Your task to perform on an android device: Open Maps and search for coffee Image 0: 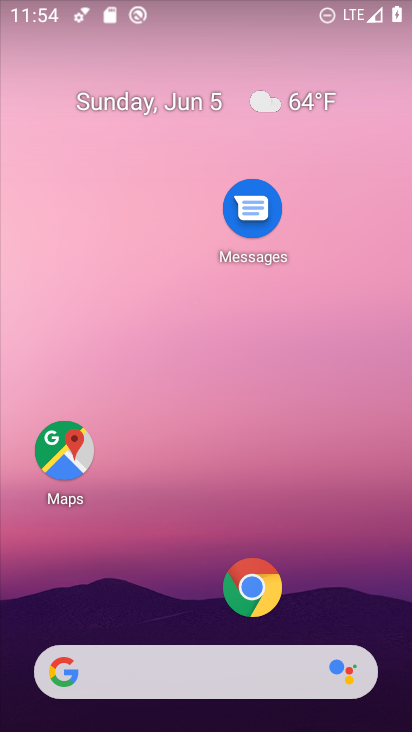
Step 0: click (45, 463)
Your task to perform on an android device: Open Maps and search for coffee Image 1: 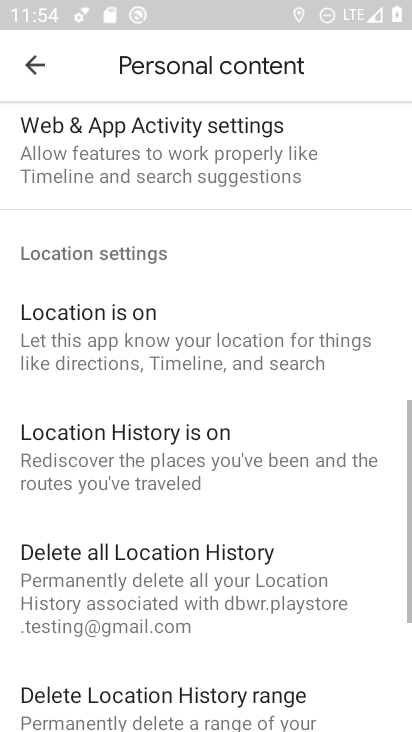
Step 1: click (34, 72)
Your task to perform on an android device: Open Maps and search for coffee Image 2: 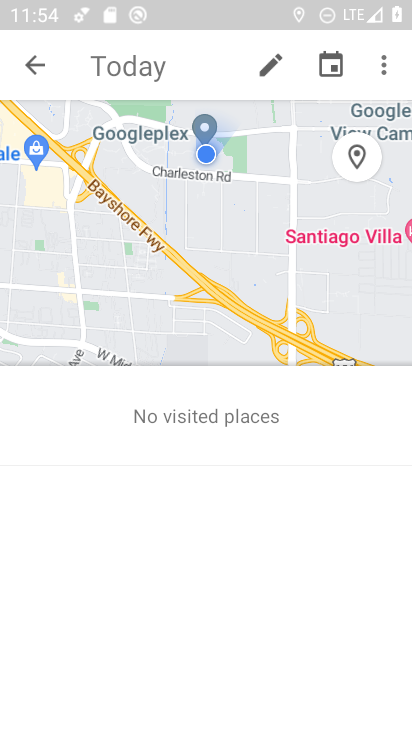
Step 2: click (34, 72)
Your task to perform on an android device: Open Maps and search for coffee Image 3: 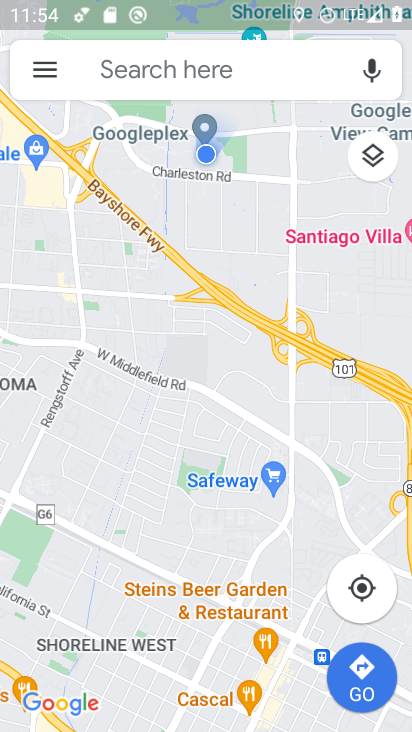
Step 3: click (130, 91)
Your task to perform on an android device: Open Maps and search for coffee Image 4: 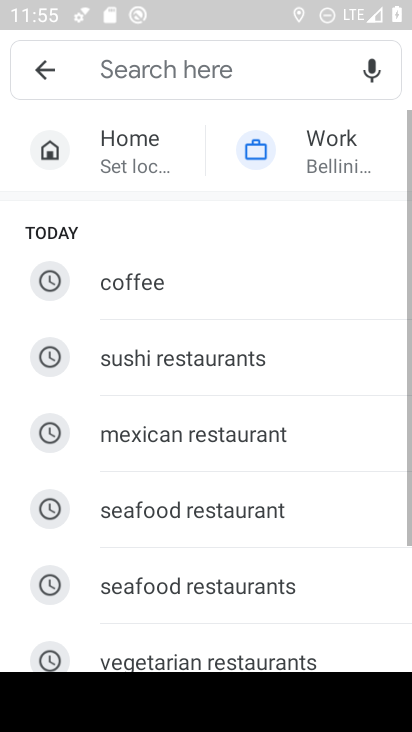
Step 4: click (121, 286)
Your task to perform on an android device: Open Maps and search for coffee Image 5: 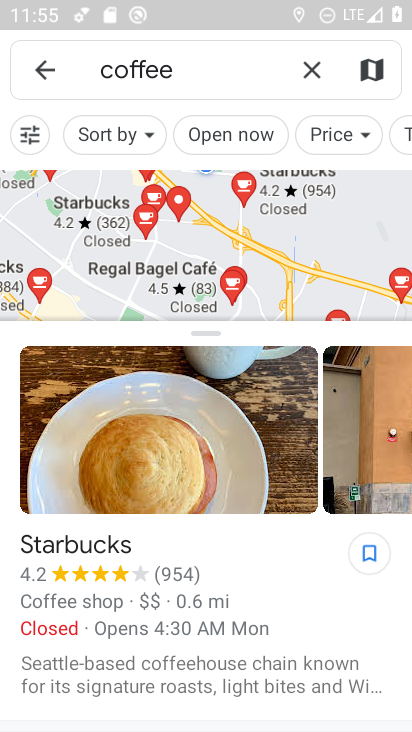
Step 5: task complete